Your task to perform on an android device: Open Reddit.com Image 0: 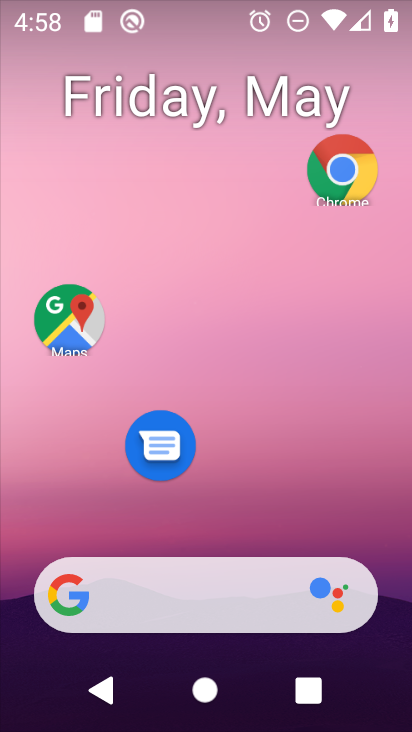
Step 0: click (345, 166)
Your task to perform on an android device: Open Reddit.com Image 1: 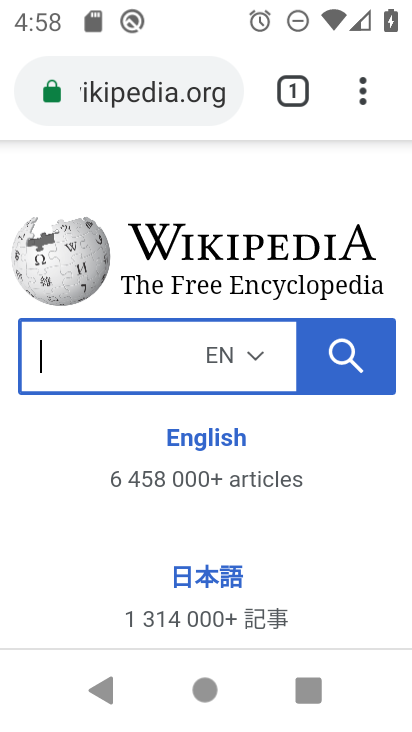
Step 1: click (366, 86)
Your task to perform on an android device: Open Reddit.com Image 2: 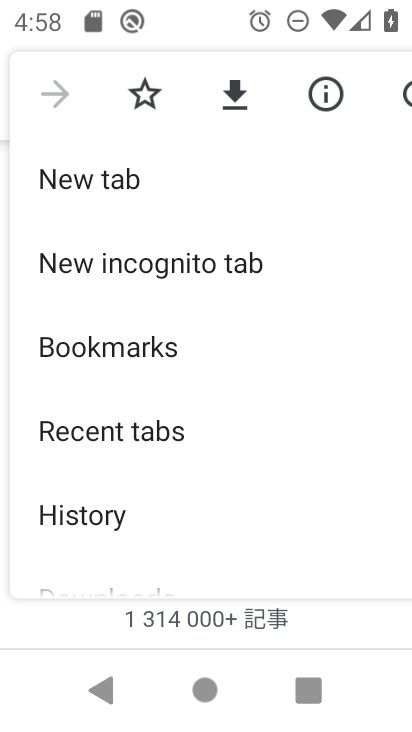
Step 2: press home button
Your task to perform on an android device: Open Reddit.com Image 3: 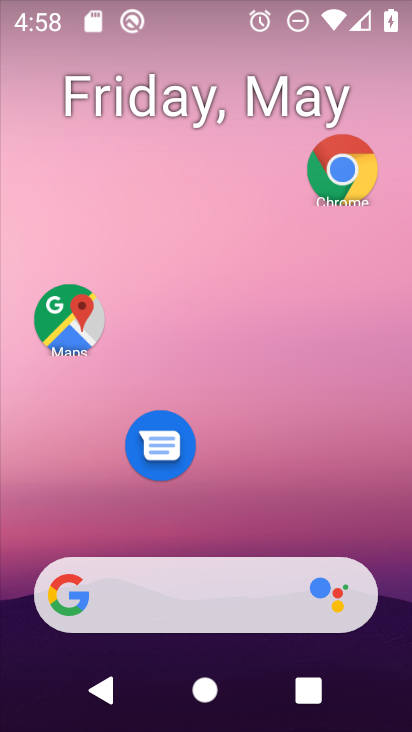
Step 3: click (347, 168)
Your task to perform on an android device: Open Reddit.com Image 4: 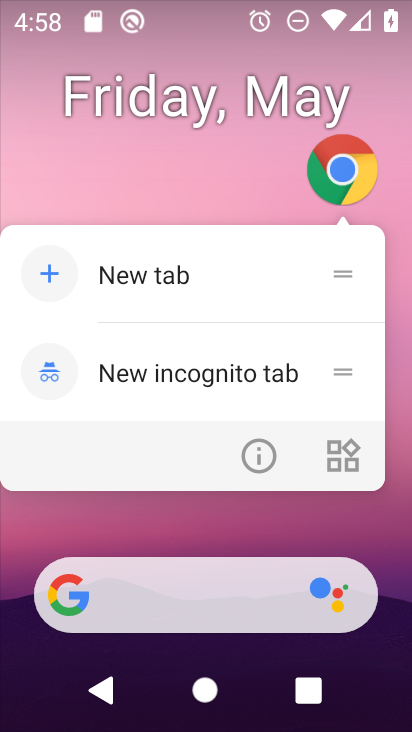
Step 4: click (347, 169)
Your task to perform on an android device: Open Reddit.com Image 5: 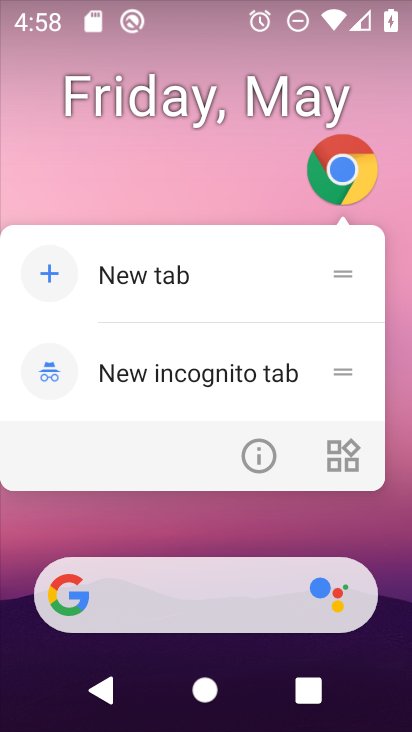
Step 5: click (340, 169)
Your task to perform on an android device: Open Reddit.com Image 6: 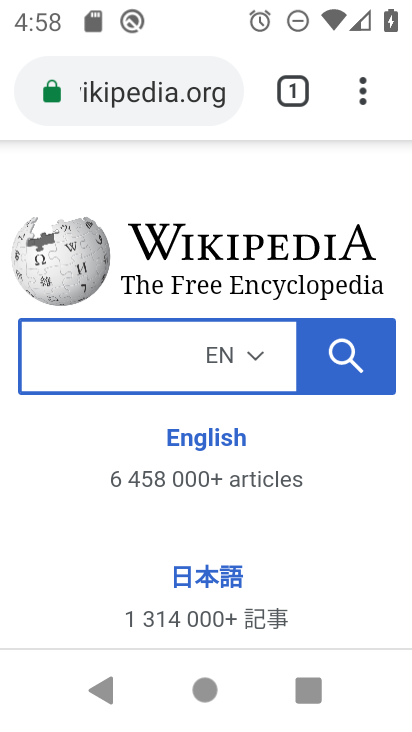
Step 6: task complete